Your task to perform on an android device: Search for "panasonic triple a" on amazon, select the first entry, and add it to the cart. Image 0: 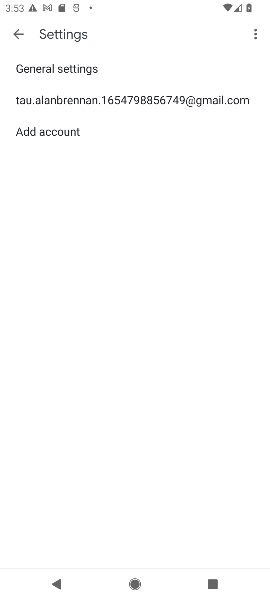
Step 0: press home button
Your task to perform on an android device: Search for "panasonic triple a" on amazon, select the first entry, and add it to the cart. Image 1: 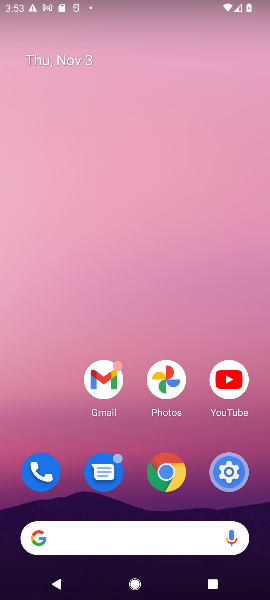
Step 1: click (125, 545)
Your task to perform on an android device: Search for "panasonic triple a" on amazon, select the first entry, and add it to the cart. Image 2: 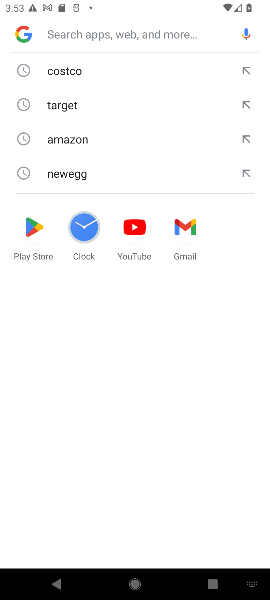
Step 2: click (107, 140)
Your task to perform on an android device: Search for "panasonic triple a" on amazon, select the first entry, and add it to the cart. Image 3: 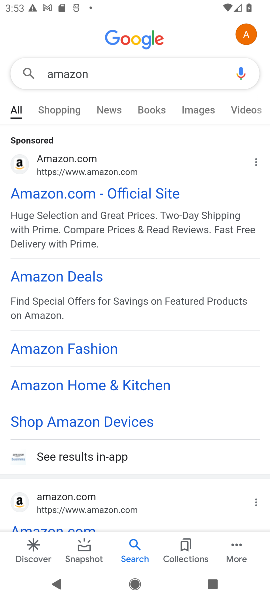
Step 3: click (78, 189)
Your task to perform on an android device: Search for "panasonic triple a" on amazon, select the first entry, and add it to the cart. Image 4: 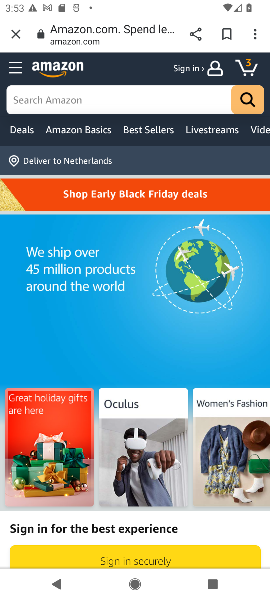
Step 4: click (87, 105)
Your task to perform on an android device: Search for "panasonic triple a" on amazon, select the first entry, and add it to the cart. Image 5: 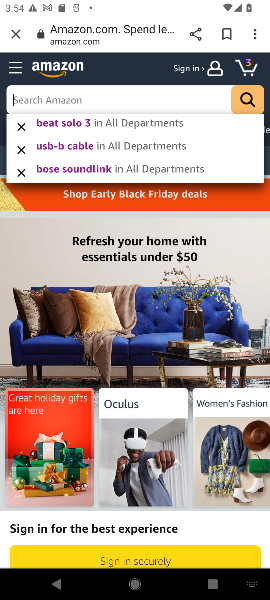
Step 5: type "panasonic triple A"
Your task to perform on an android device: Search for "panasonic triple a" on amazon, select the first entry, and add it to the cart. Image 6: 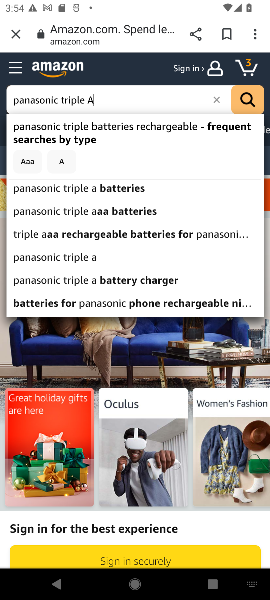
Step 6: click (85, 154)
Your task to perform on an android device: Search for "panasonic triple a" on amazon, select the first entry, and add it to the cart. Image 7: 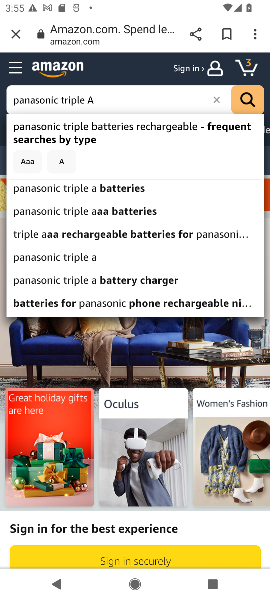
Step 7: click (62, 191)
Your task to perform on an android device: Search for "panasonic triple a" on amazon, select the first entry, and add it to the cart. Image 8: 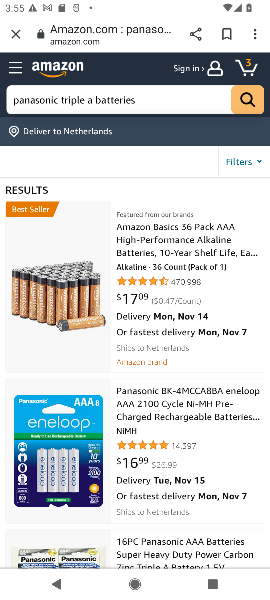
Step 8: click (114, 267)
Your task to perform on an android device: Search for "panasonic triple a" on amazon, select the first entry, and add it to the cart. Image 9: 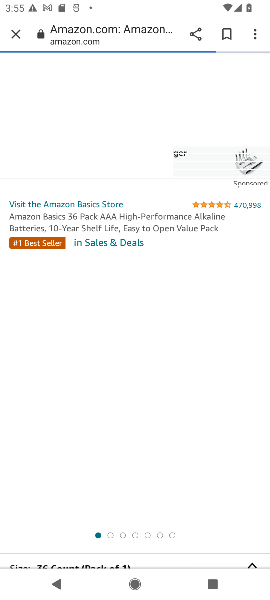
Step 9: drag from (94, 367) to (63, 262)
Your task to perform on an android device: Search for "panasonic triple a" on amazon, select the first entry, and add it to the cart. Image 10: 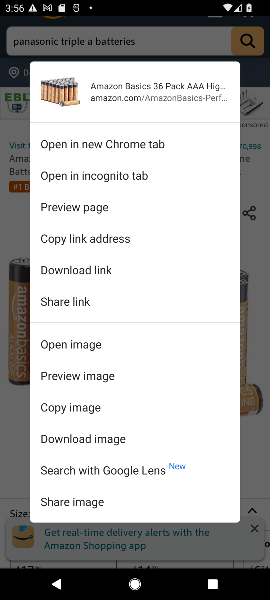
Step 10: click (3, 375)
Your task to perform on an android device: Search for "panasonic triple a" on amazon, select the first entry, and add it to the cart. Image 11: 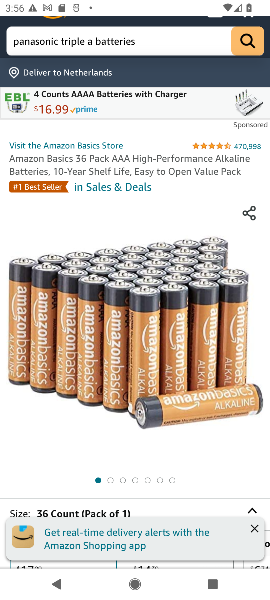
Step 11: drag from (46, 472) to (58, 251)
Your task to perform on an android device: Search for "panasonic triple a" on amazon, select the first entry, and add it to the cart. Image 12: 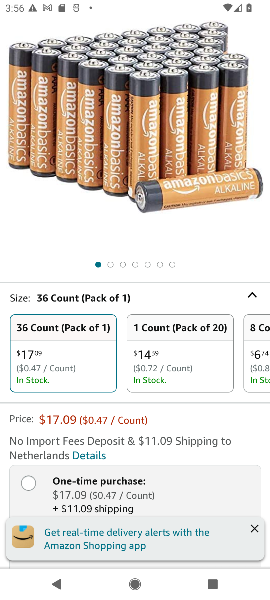
Step 12: click (254, 531)
Your task to perform on an android device: Search for "panasonic triple a" on amazon, select the first entry, and add it to the cart. Image 13: 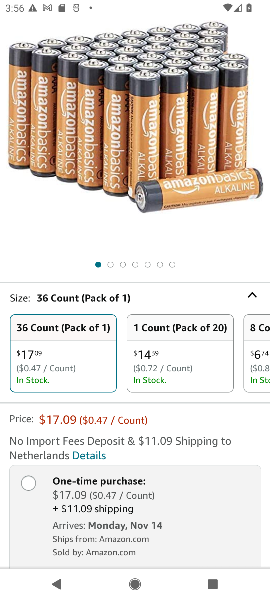
Step 13: drag from (219, 460) to (204, 240)
Your task to perform on an android device: Search for "panasonic triple a" on amazon, select the first entry, and add it to the cart. Image 14: 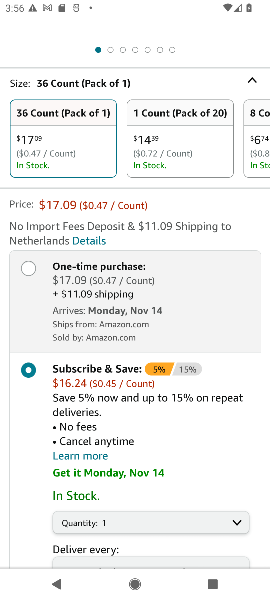
Step 14: drag from (164, 492) to (126, 341)
Your task to perform on an android device: Search for "panasonic triple a" on amazon, select the first entry, and add it to the cart. Image 15: 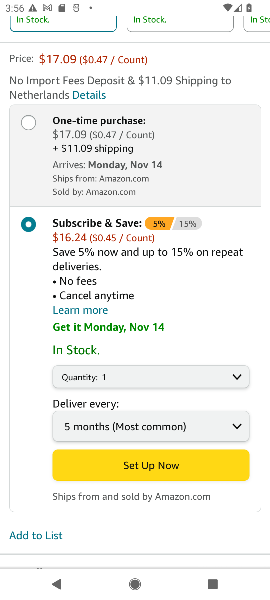
Step 15: click (130, 476)
Your task to perform on an android device: Search for "panasonic triple a" on amazon, select the first entry, and add it to the cart. Image 16: 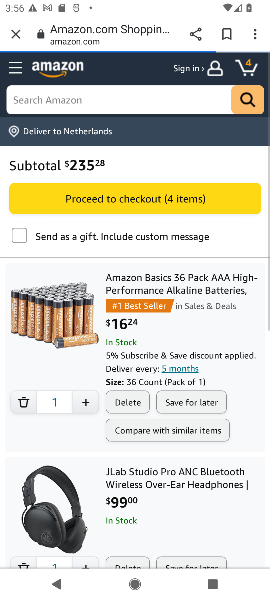
Step 16: task complete